Your task to perform on an android device: Go to Yahoo.com Image 0: 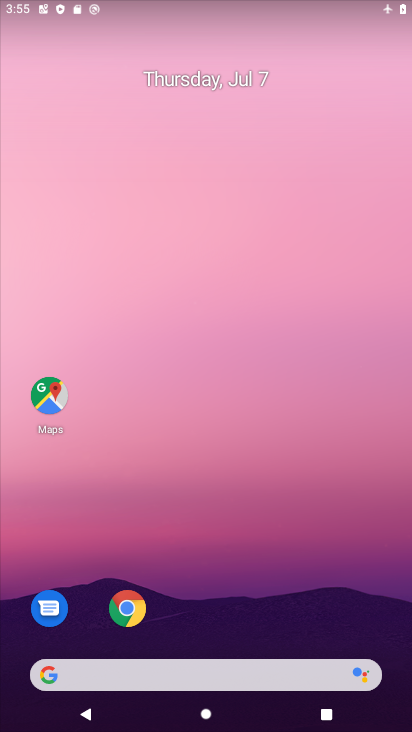
Step 0: drag from (237, 606) to (167, 57)
Your task to perform on an android device: Go to Yahoo.com Image 1: 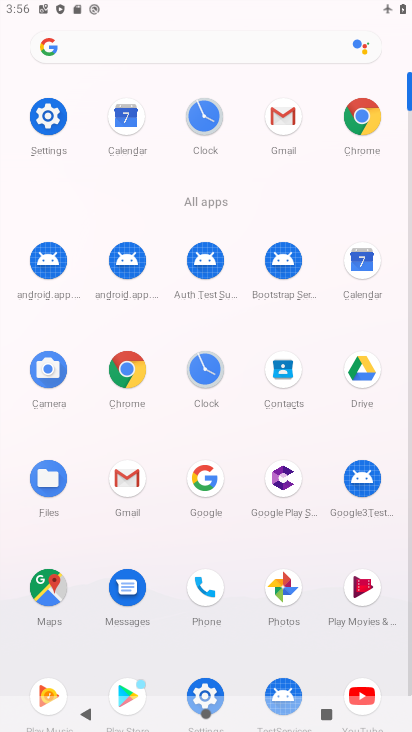
Step 1: click (363, 126)
Your task to perform on an android device: Go to Yahoo.com Image 2: 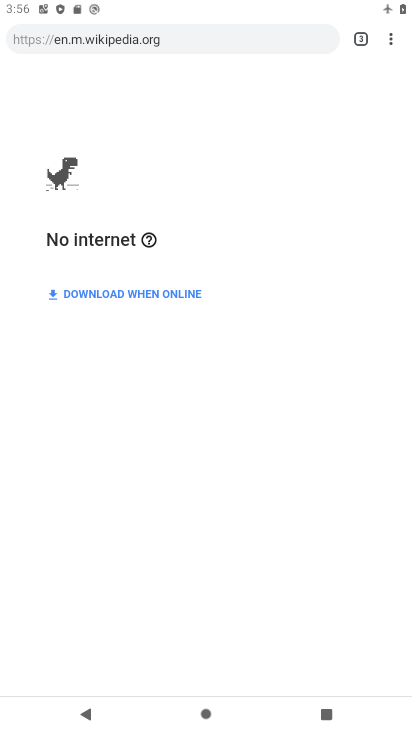
Step 2: click (227, 38)
Your task to perform on an android device: Go to Yahoo.com Image 3: 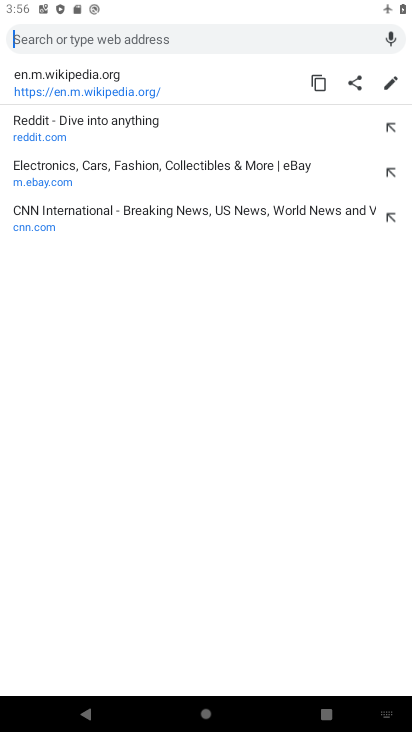
Step 3: type "yahoo.com"
Your task to perform on an android device: Go to Yahoo.com Image 4: 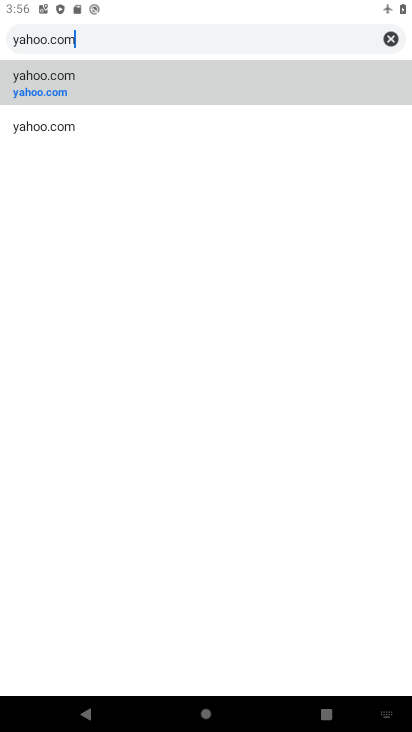
Step 4: click (51, 93)
Your task to perform on an android device: Go to Yahoo.com Image 5: 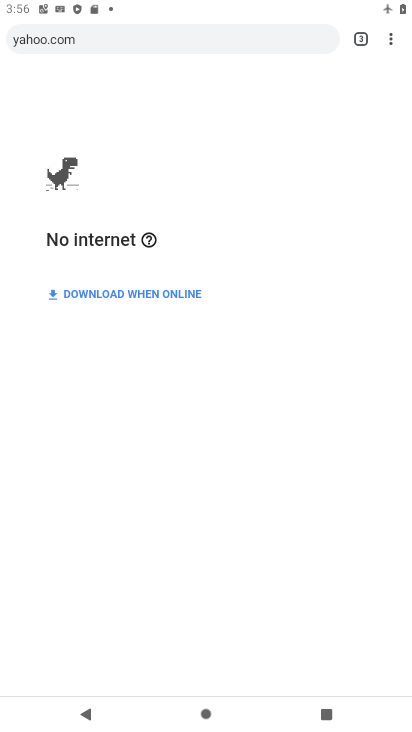
Step 5: task complete